Your task to perform on an android device: Search for "lg ultragear" on amazon.com, select the first entry, and add it to the cart. Image 0: 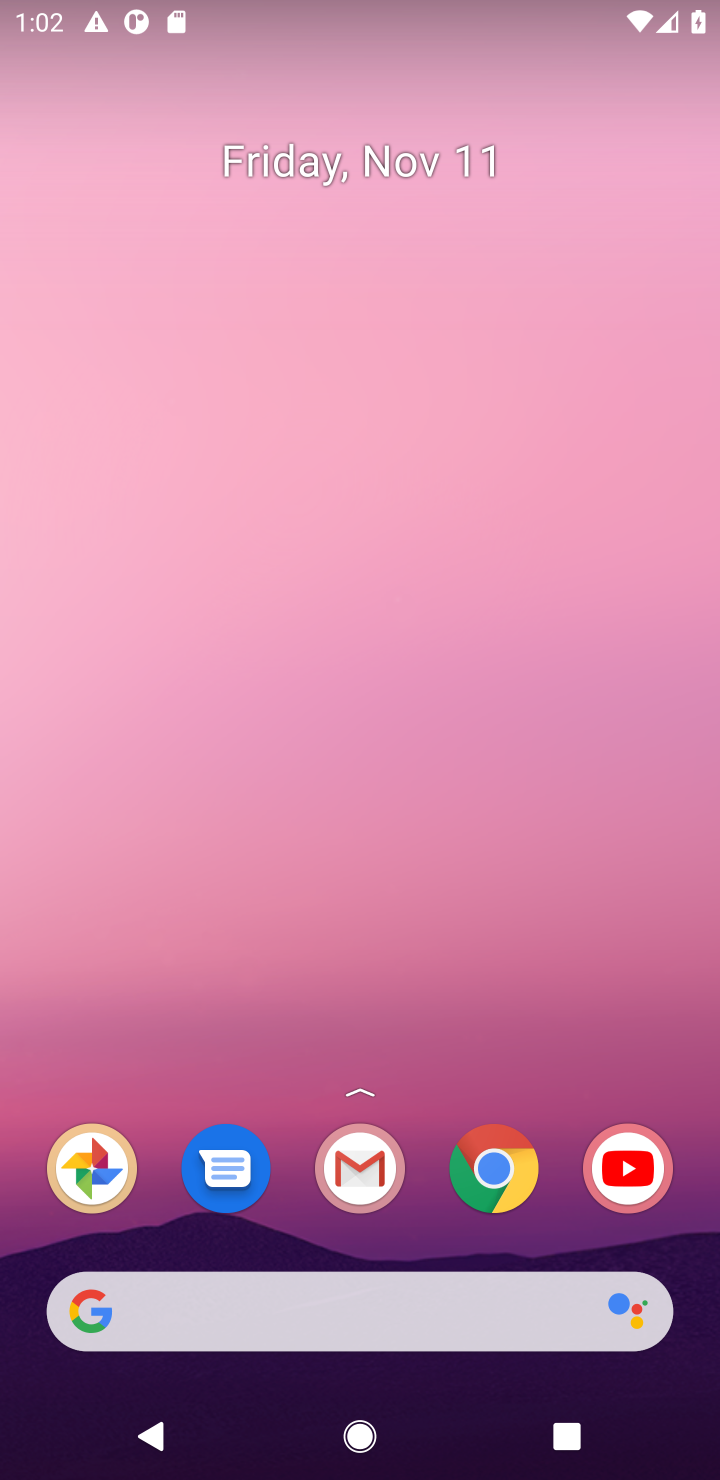
Step 0: click (495, 1191)
Your task to perform on an android device: Search for "lg ultragear" on amazon.com, select the first entry, and add it to the cart. Image 1: 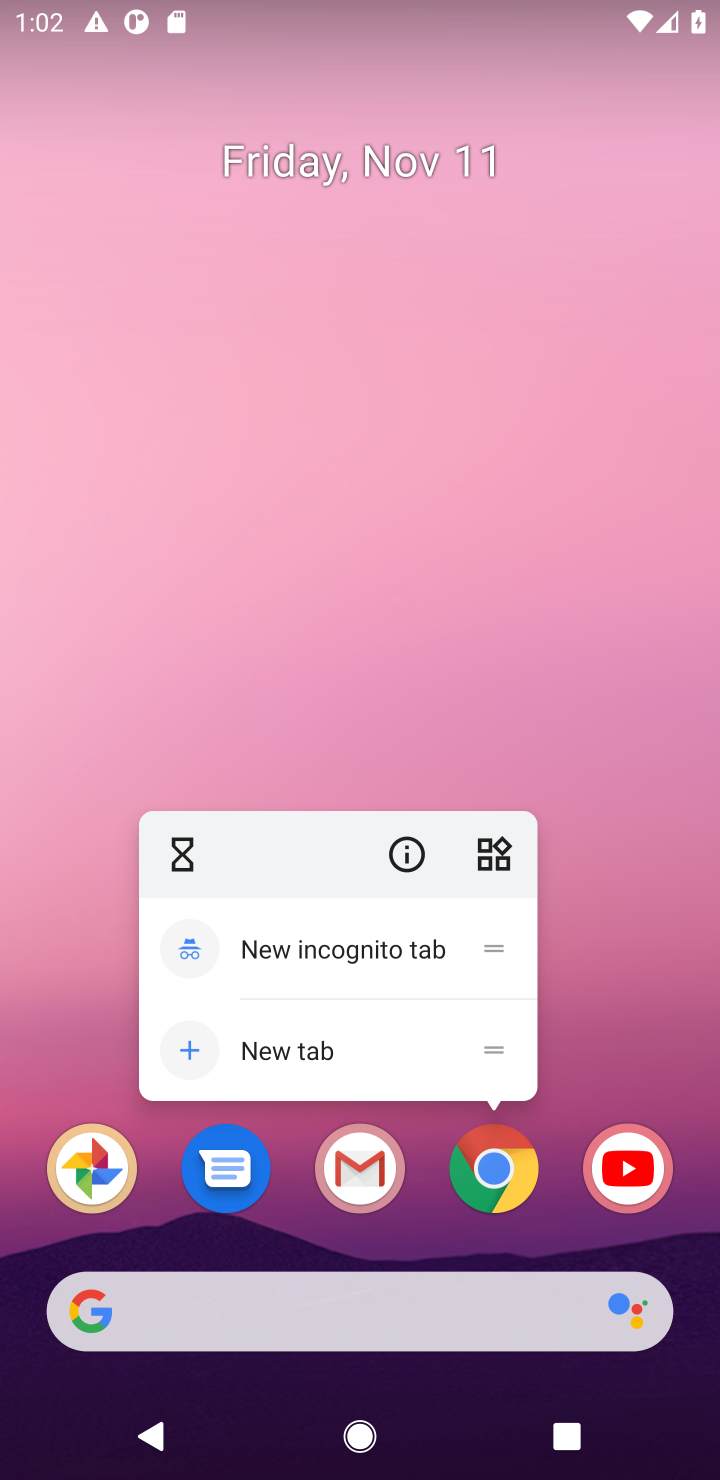
Step 1: click (496, 1179)
Your task to perform on an android device: Search for "lg ultragear" on amazon.com, select the first entry, and add it to the cart. Image 2: 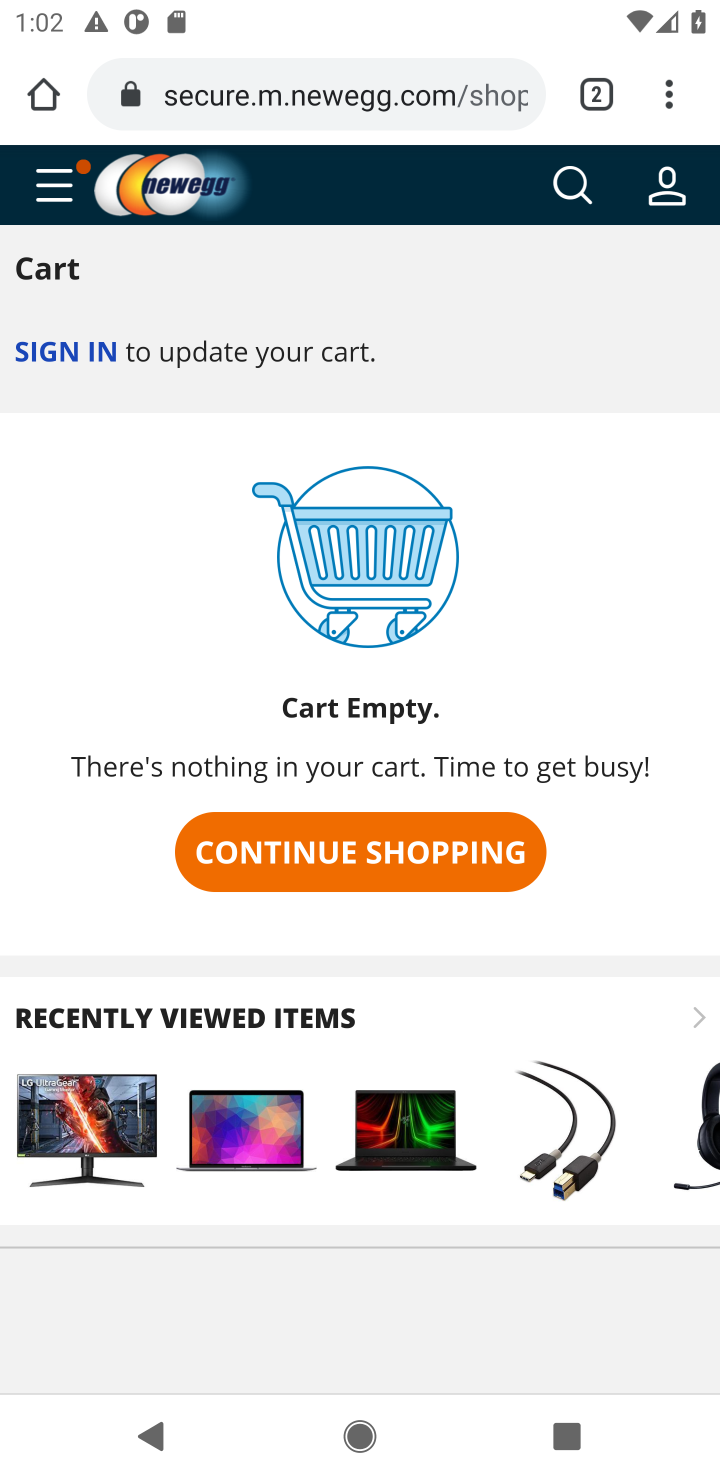
Step 2: click (317, 87)
Your task to perform on an android device: Search for "lg ultragear" on amazon.com, select the first entry, and add it to the cart. Image 3: 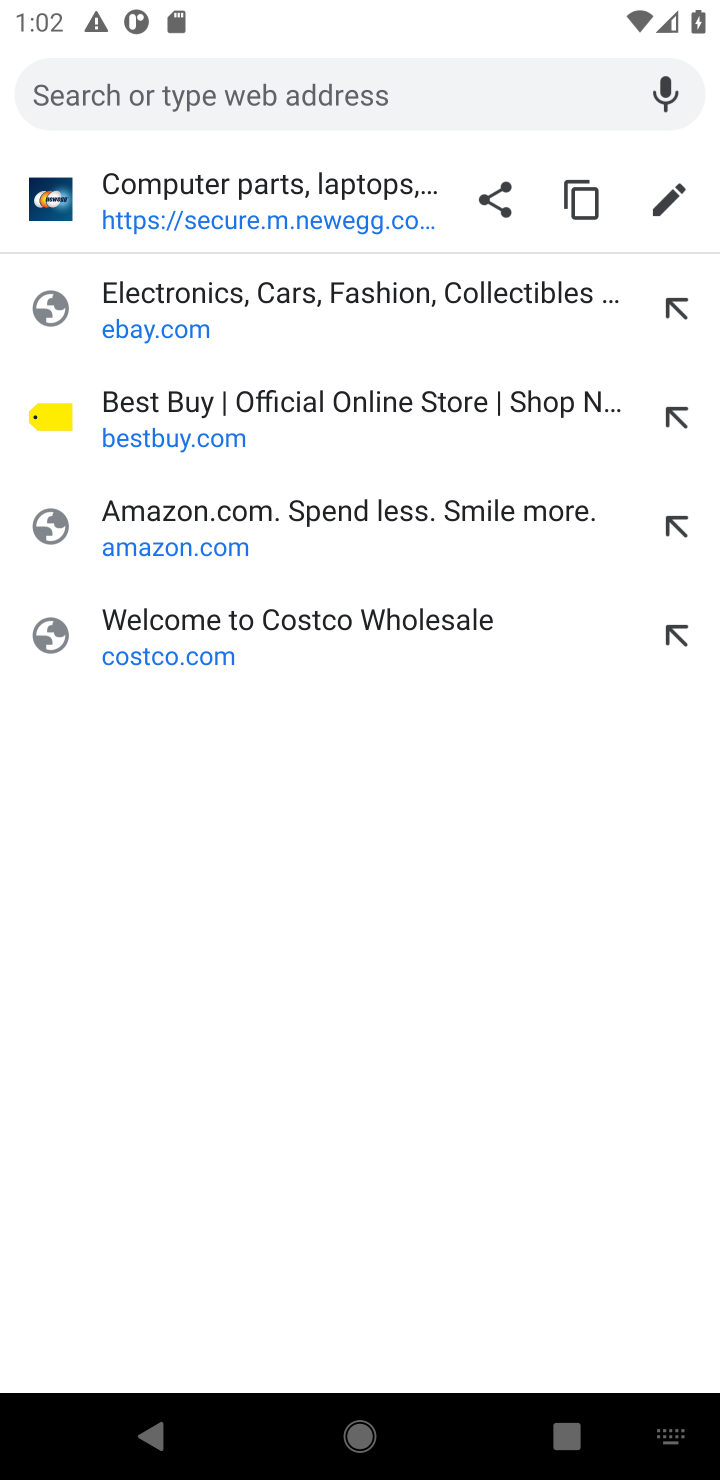
Step 3: click (174, 531)
Your task to perform on an android device: Search for "lg ultragear" on amazon.com, select the first entry, and add it to the cart. Image 4: 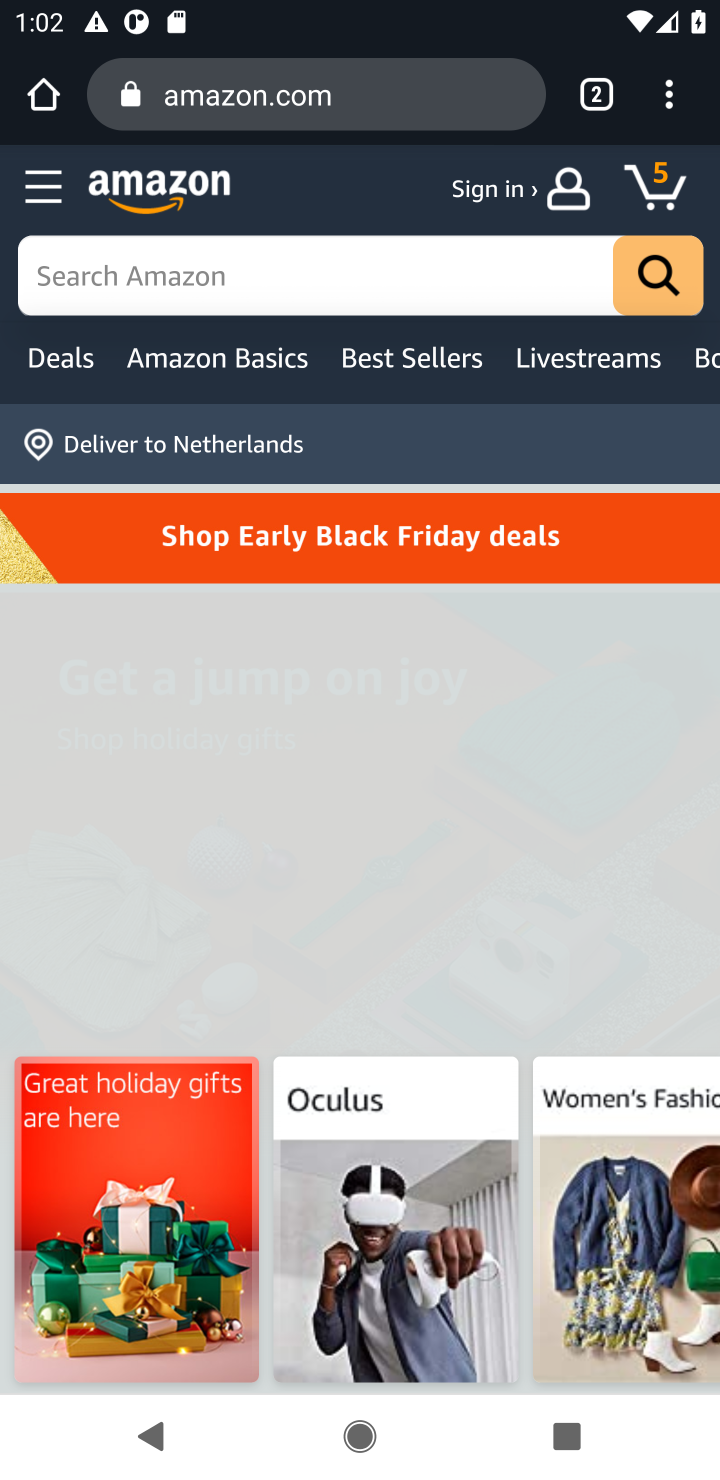
Step 4: click (171, 270)
Your task to perform on an android device: Search for "lg ultragear" on amazon.com, select the first entry, and add it to the cart. Image 5: 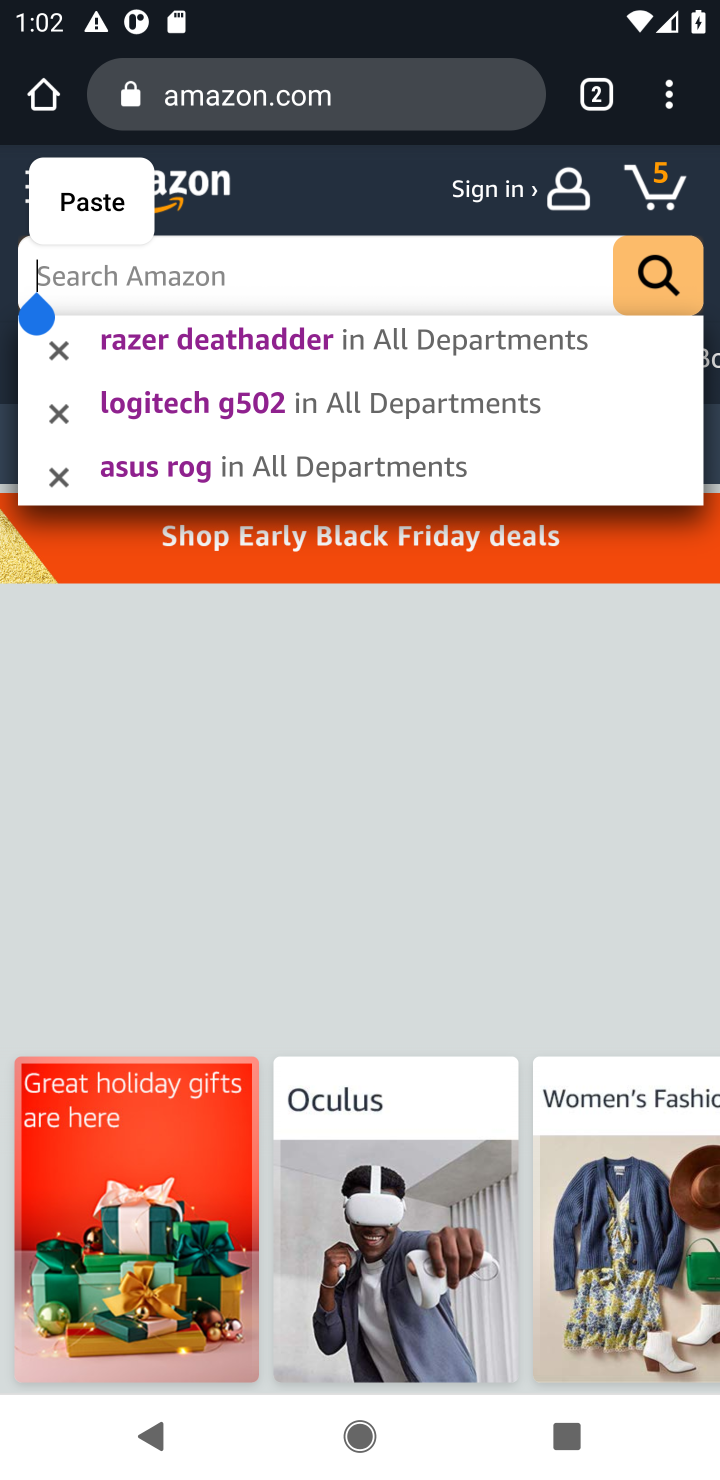
Step 5: type "lg ultragear"
Your task to perform on an android device: Search for "lg ultragear" on amazon.com, select the first entry, and add it to the cart. Image 6: 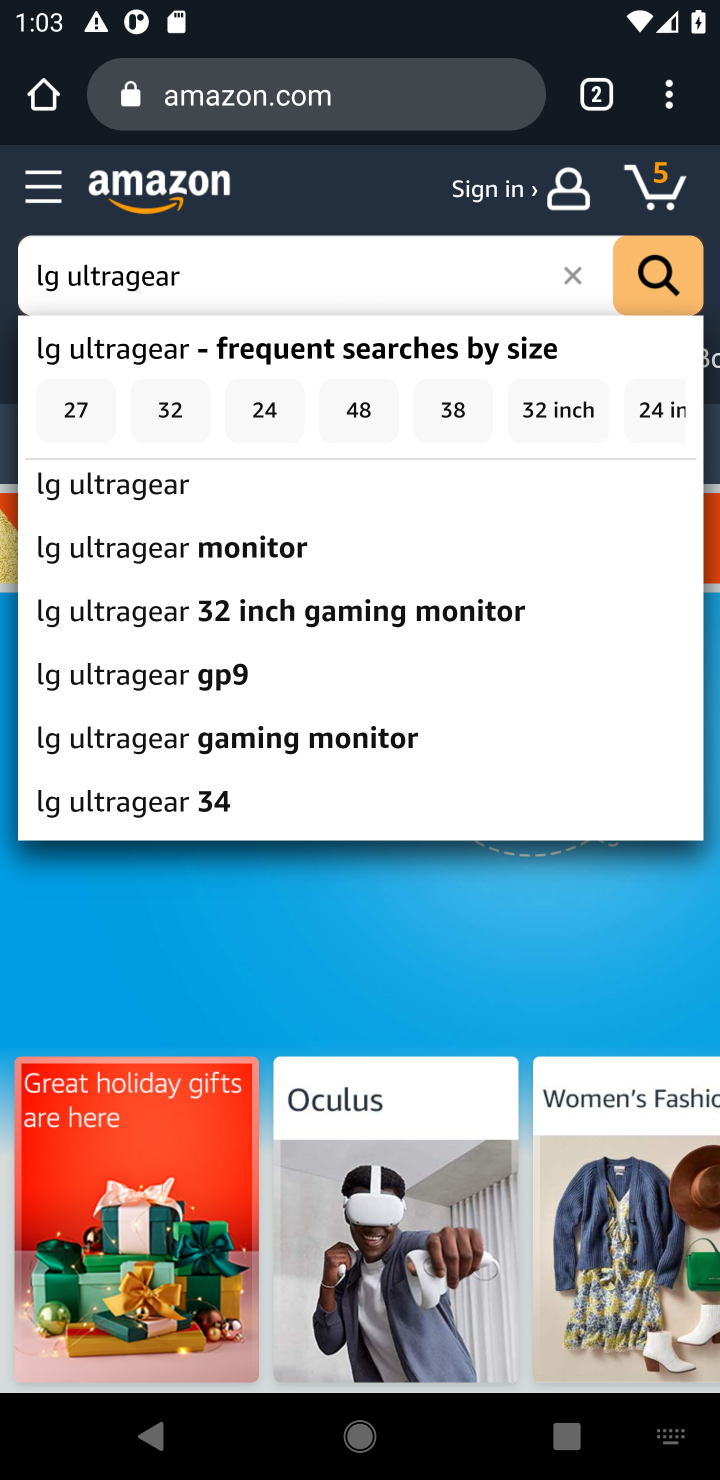
Step 6: click (112, 489)
Your task to perform on an android device: Search for "lg ultragear" on amazon.com, select the first entry, and add it to the cart. Image 7: 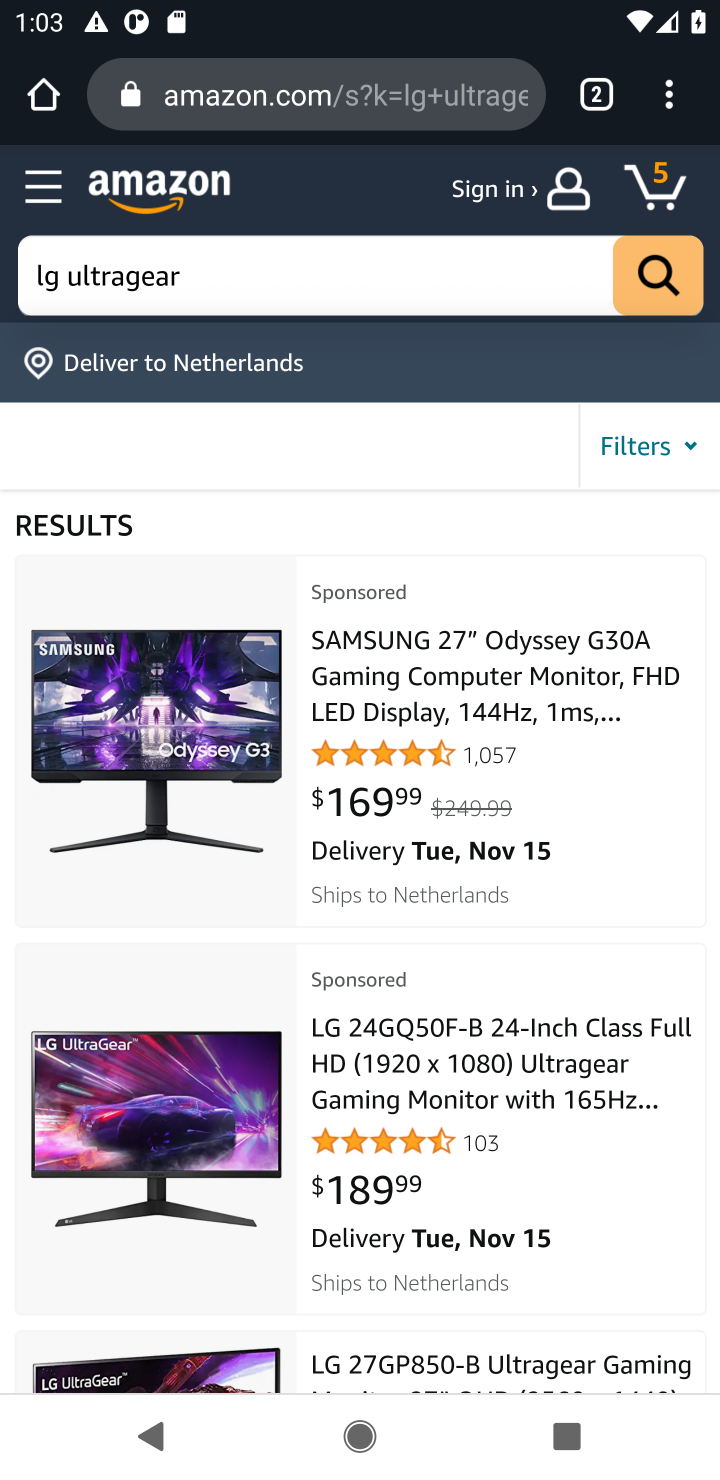
Step 7: click (675, 275)
Your task to perform on an android device: Search for "lg ultragear" on amazon.com, select the first entry, and add it to the cart. Image 8: 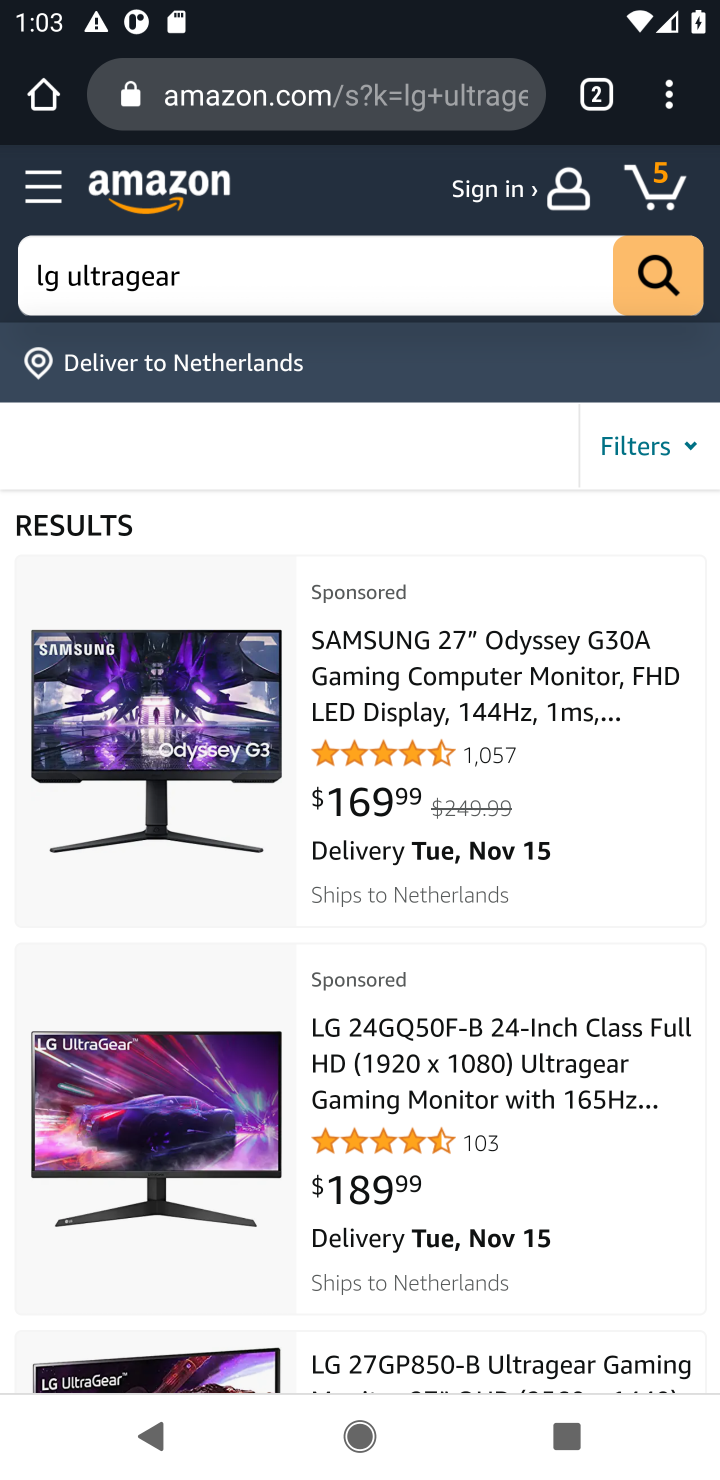
Step 8: task complete